Your task to perform on an android device: snooze an email in the gmail app Image 0: 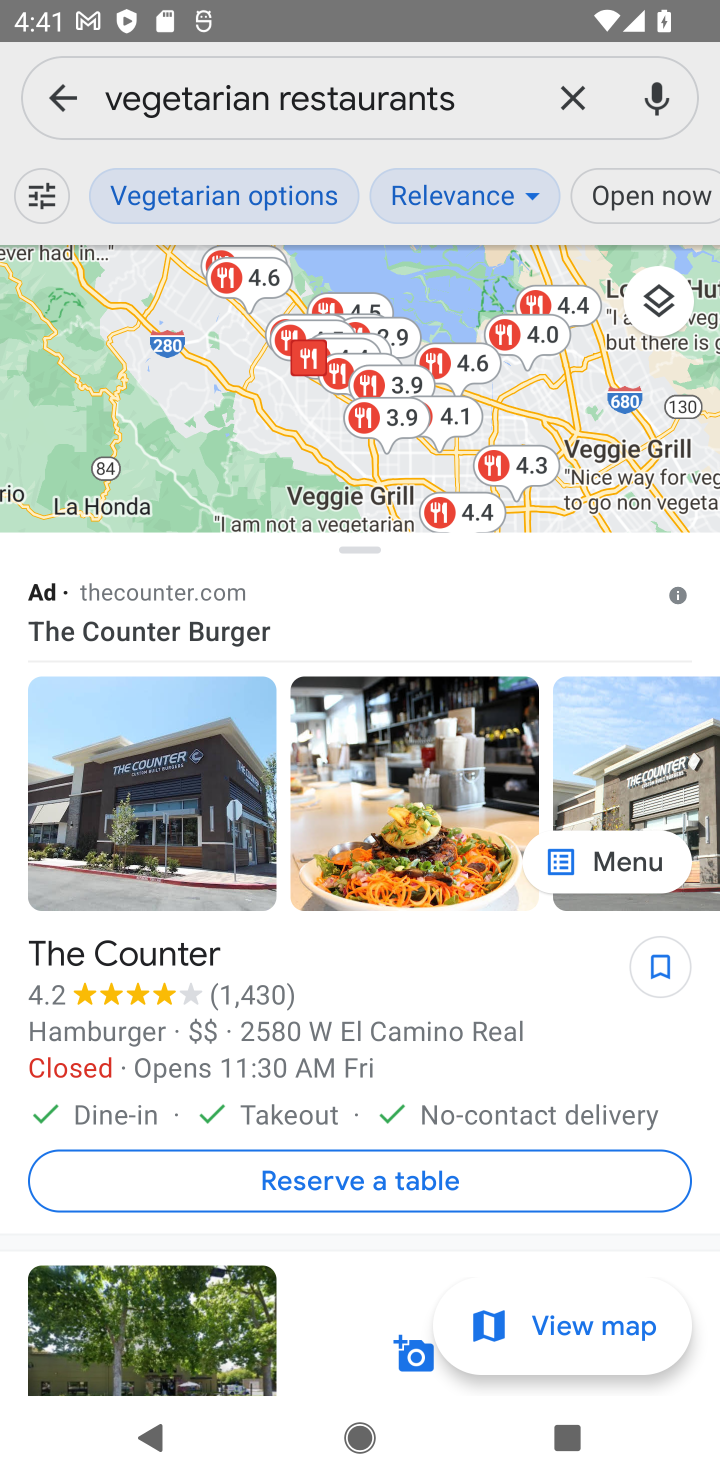
Step 0: press home button
Your task to perform on an android device: snooze an email in the gmail app Image 1: 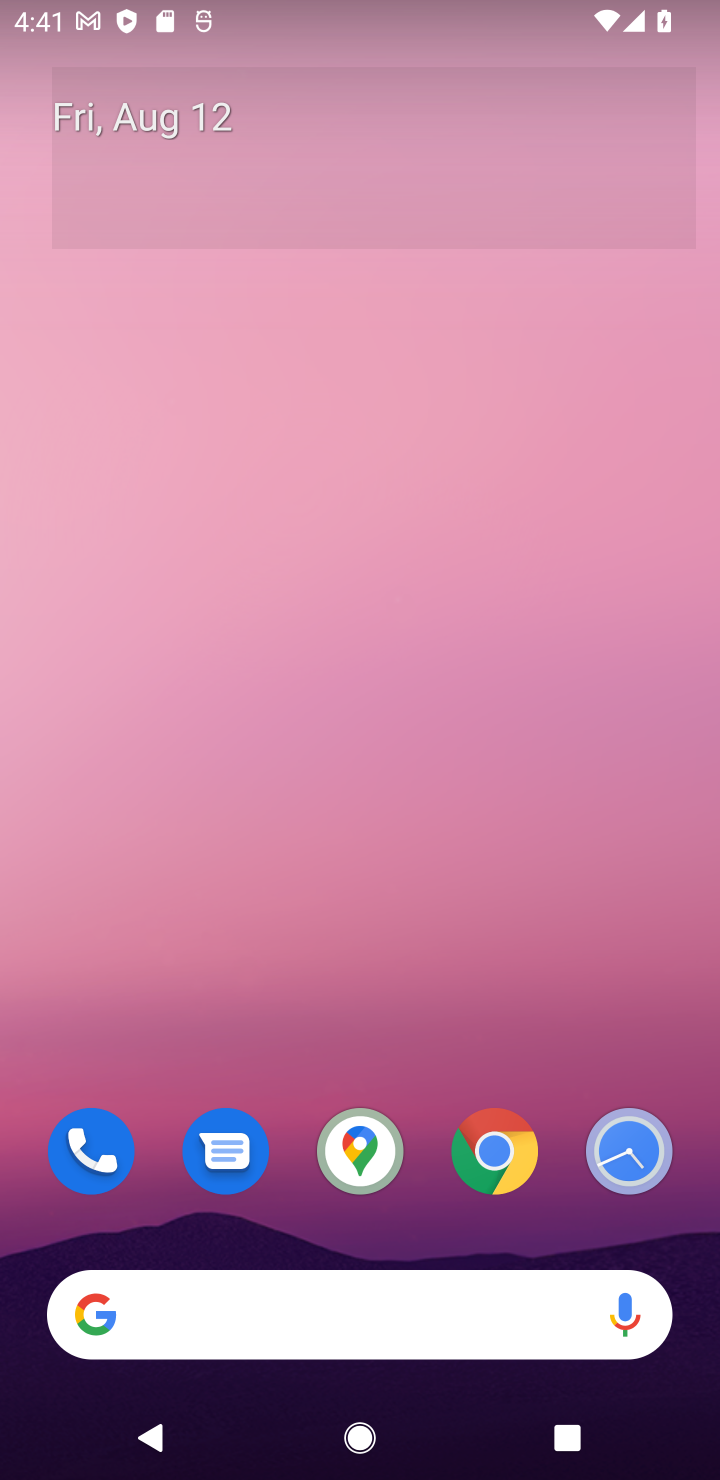
Step 1: drag from (560, 1021) to (569, 106)
Your task to perform on an android device: snooze an email in the gmail app Image 2: 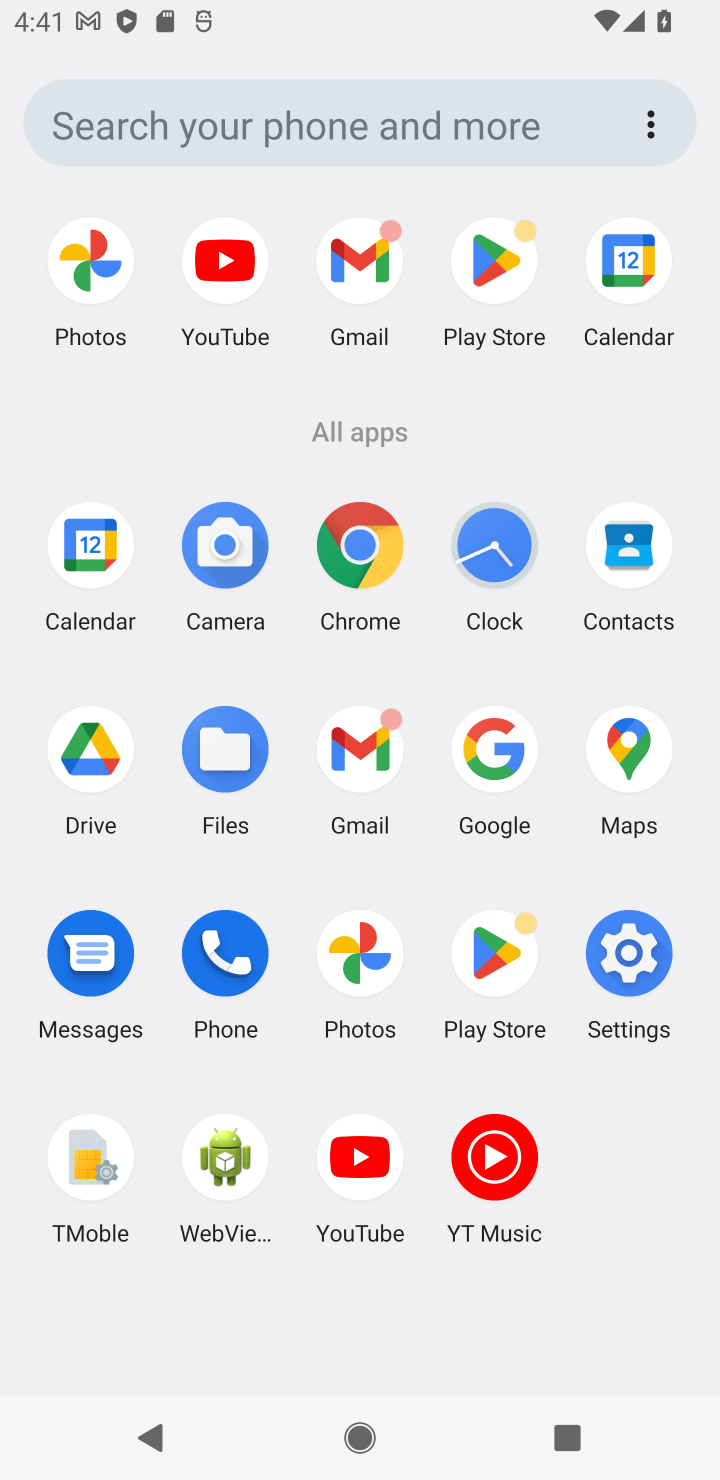
Step 2: click (380, 248)
Your task to perform on an android device: snooze an email in the gmail app Image 3: 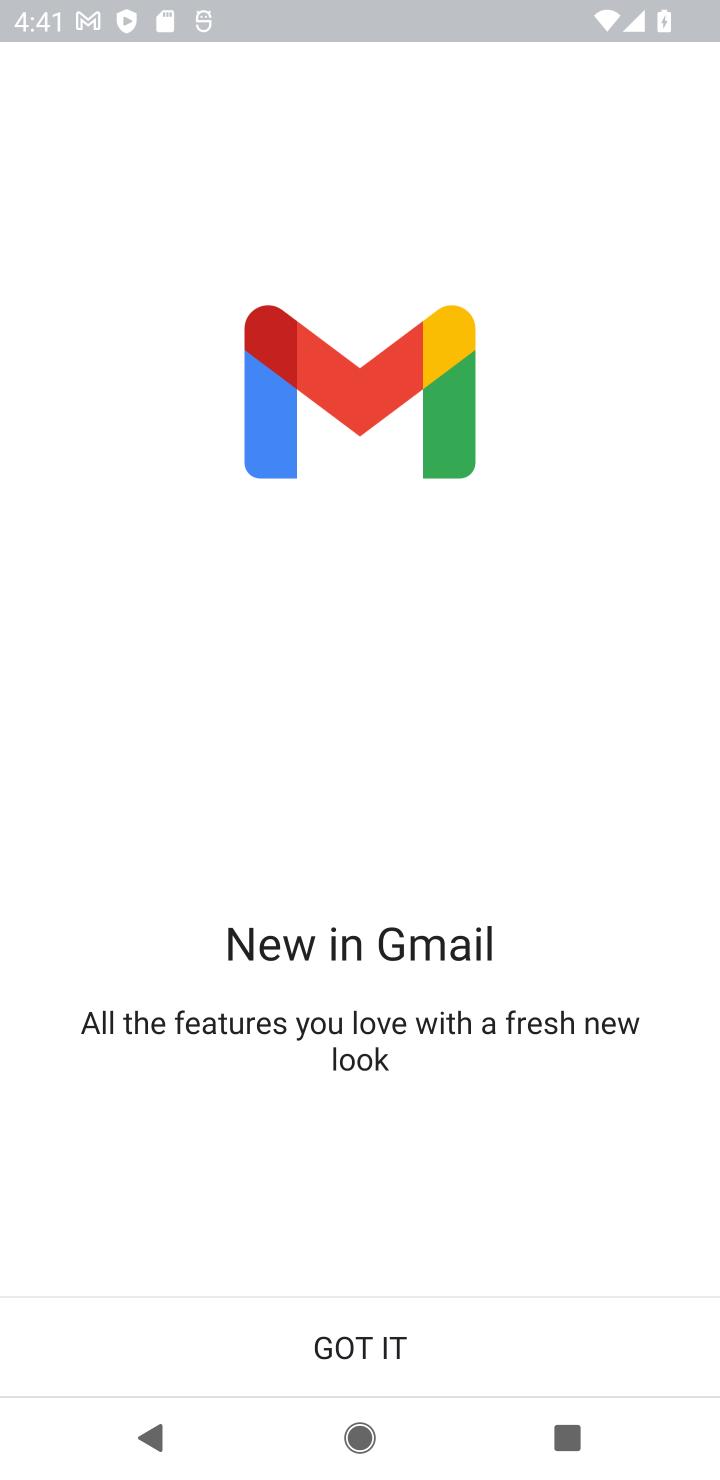
Step 3: click (399, 1316)
Your task to perform on an android device: snooze an email in the gmail app Image 4: 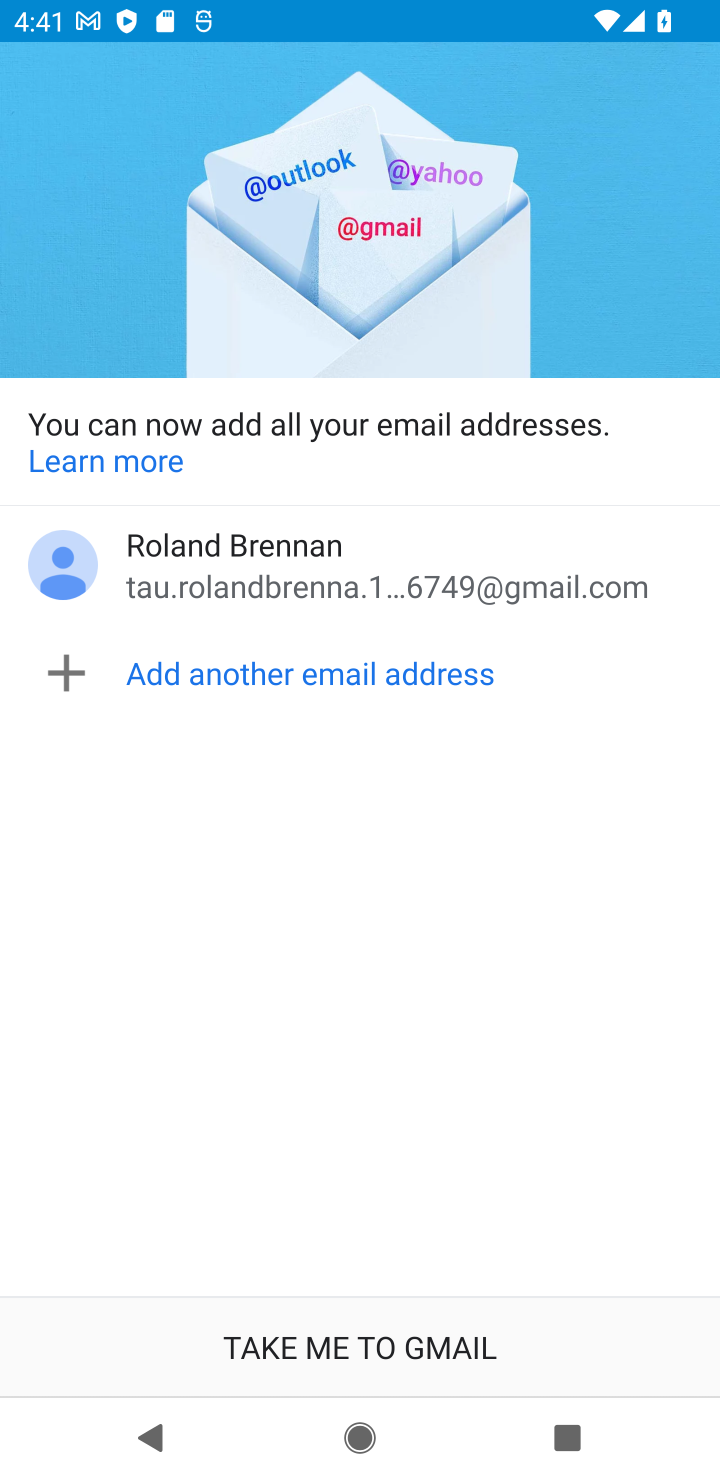
Step 4: click (322, 1307)
Your task to perform on an android device: snooze an email in the gmail app Image 5: 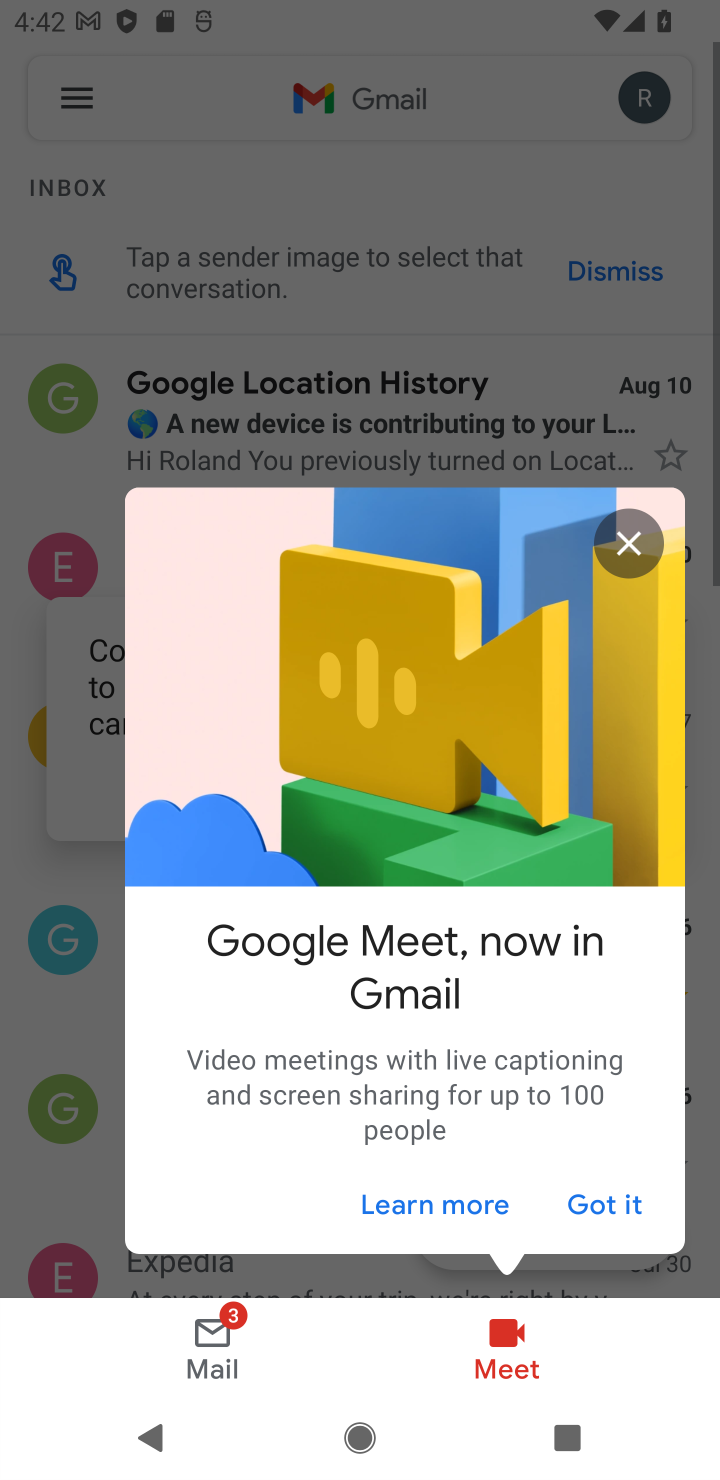
Step 5: click (624, 777)
Your task to perform on an android device: snooze an email in the gmail app Image 6: 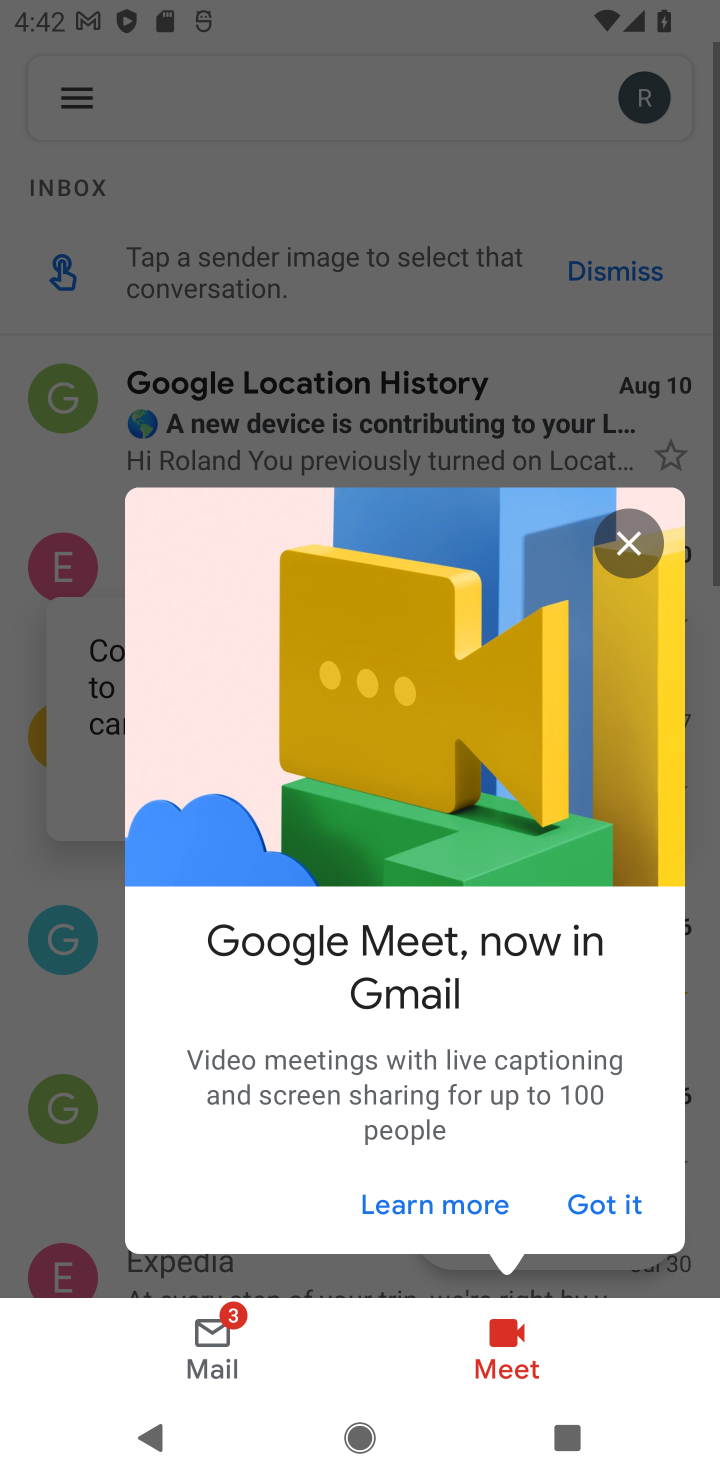
Step 6: click (623, 1201)
Your task to perform on an android device: snooze an email in the gmail app Image 7: 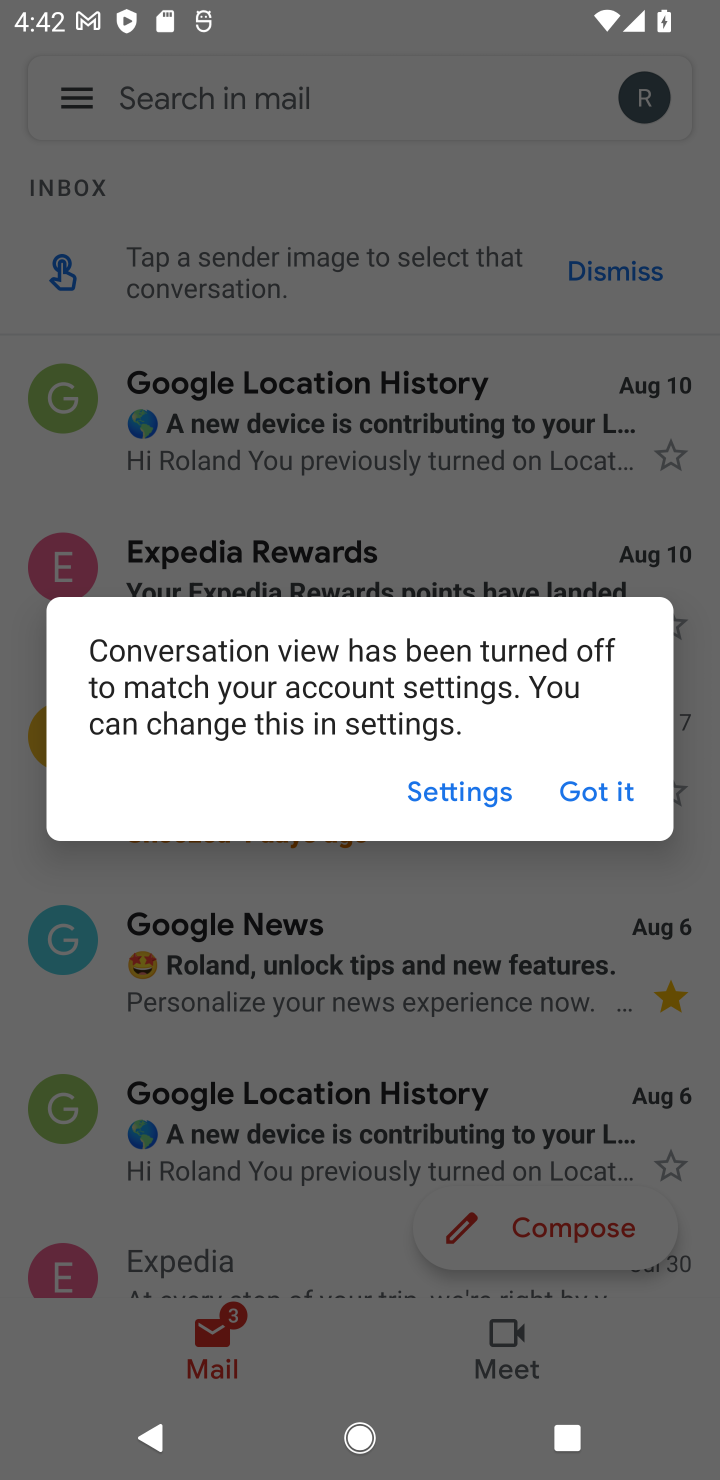
Step 7: click (594, 805)
Your task to perform on an android device: snooze an email in the gmail app Image 8: 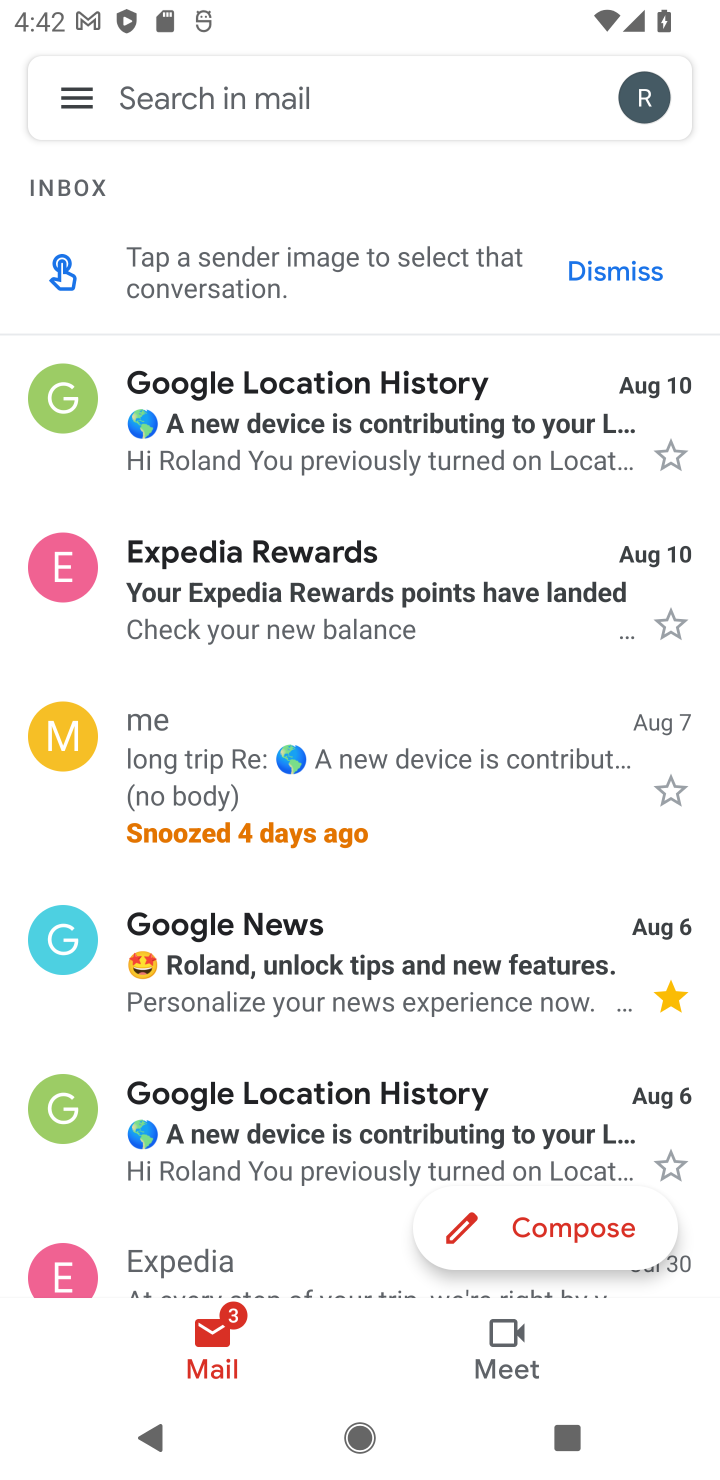
Step 8: click (90, 89)
Your task to perform on an android device: snooze an email in the gmail app Image 9: 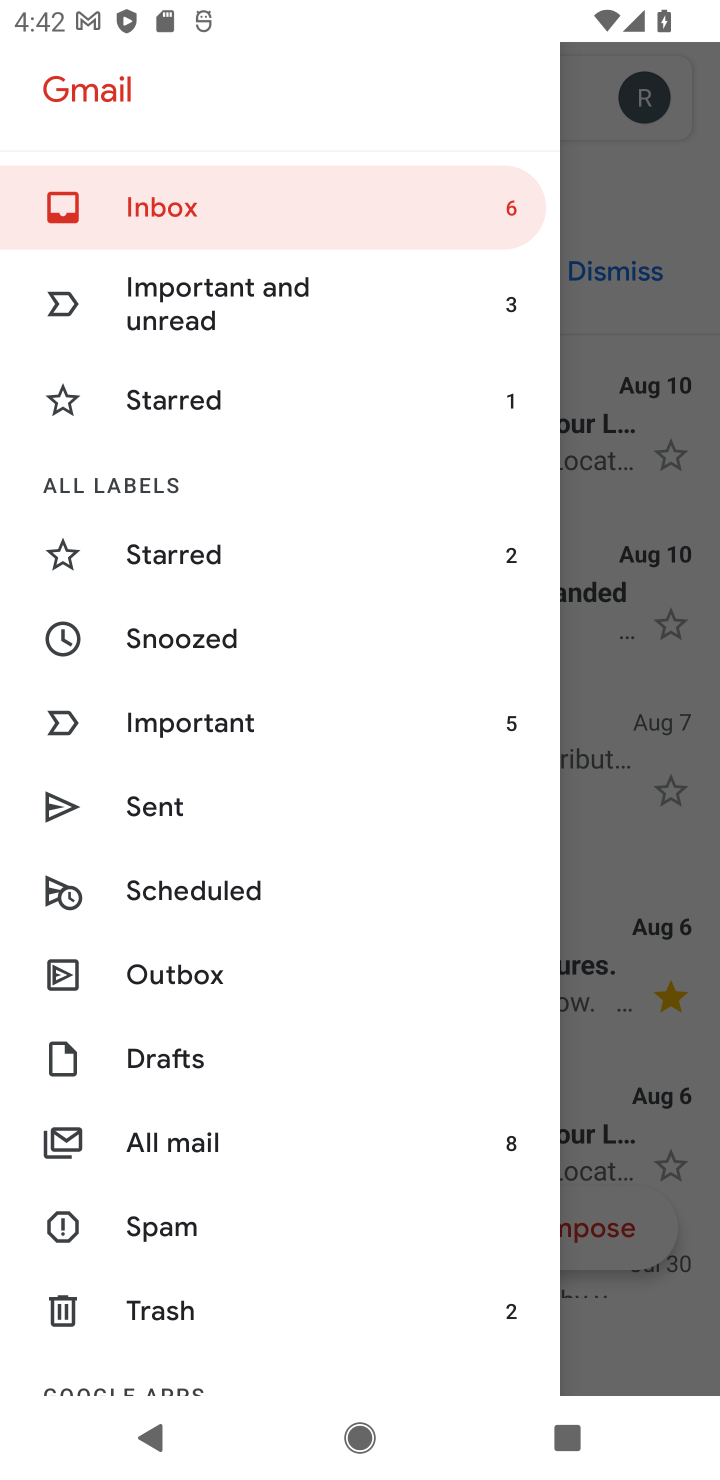
Step 9: click (179, 651)
Your task to perform on an android device: snooze an email in the gmail app Image 10: 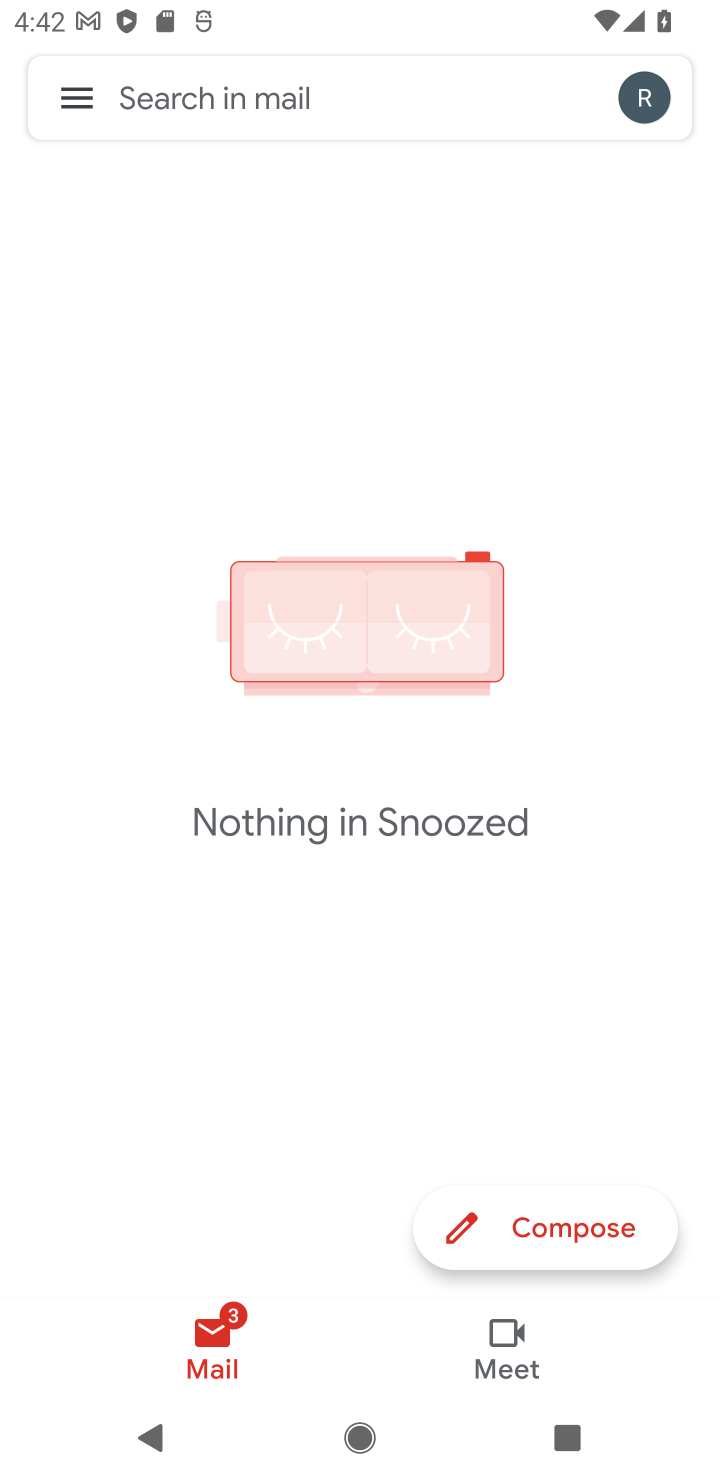
Step 10: click (67, 81)
Your task to perform on an android device: snooze an email in the gmail app Image 11: 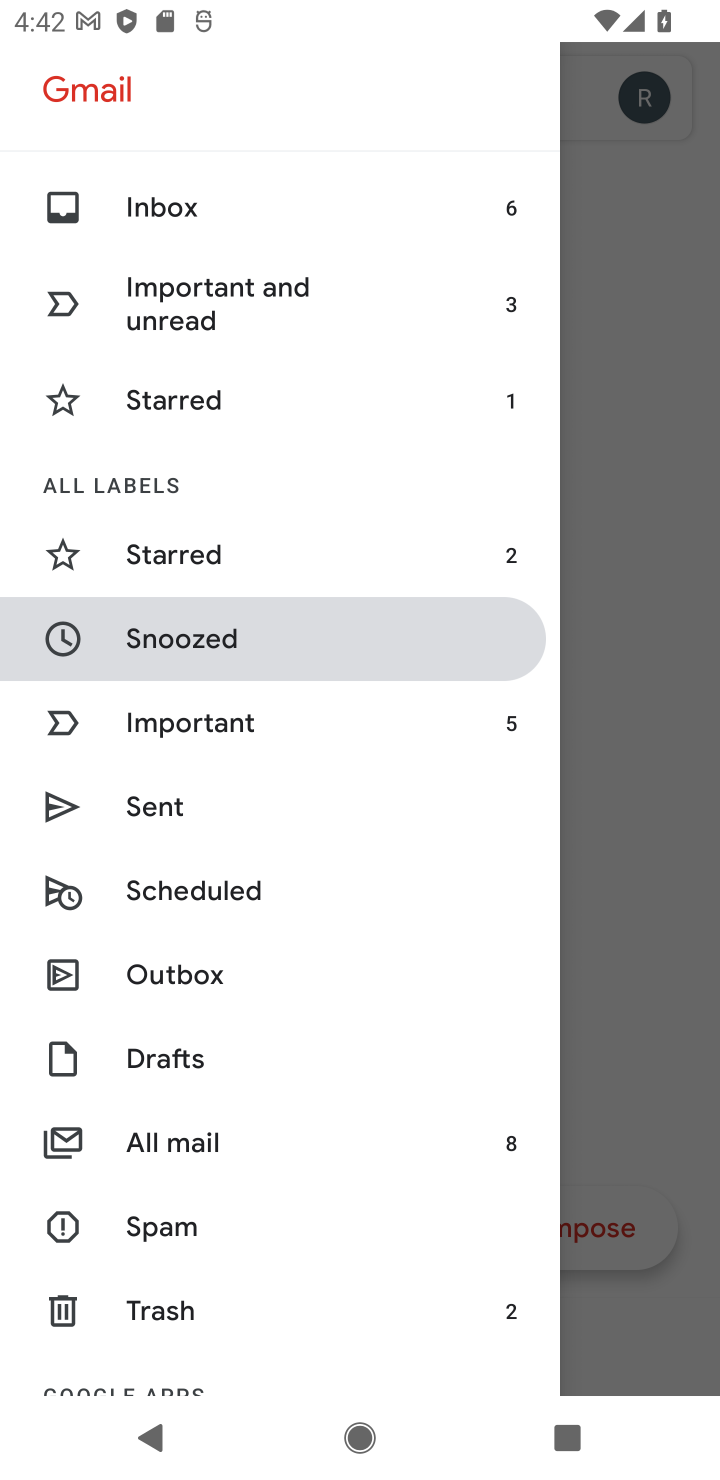
Step 11: click (204, 1150)
Your task to perform on an android device: snooze an email in the gmail app Image 12: 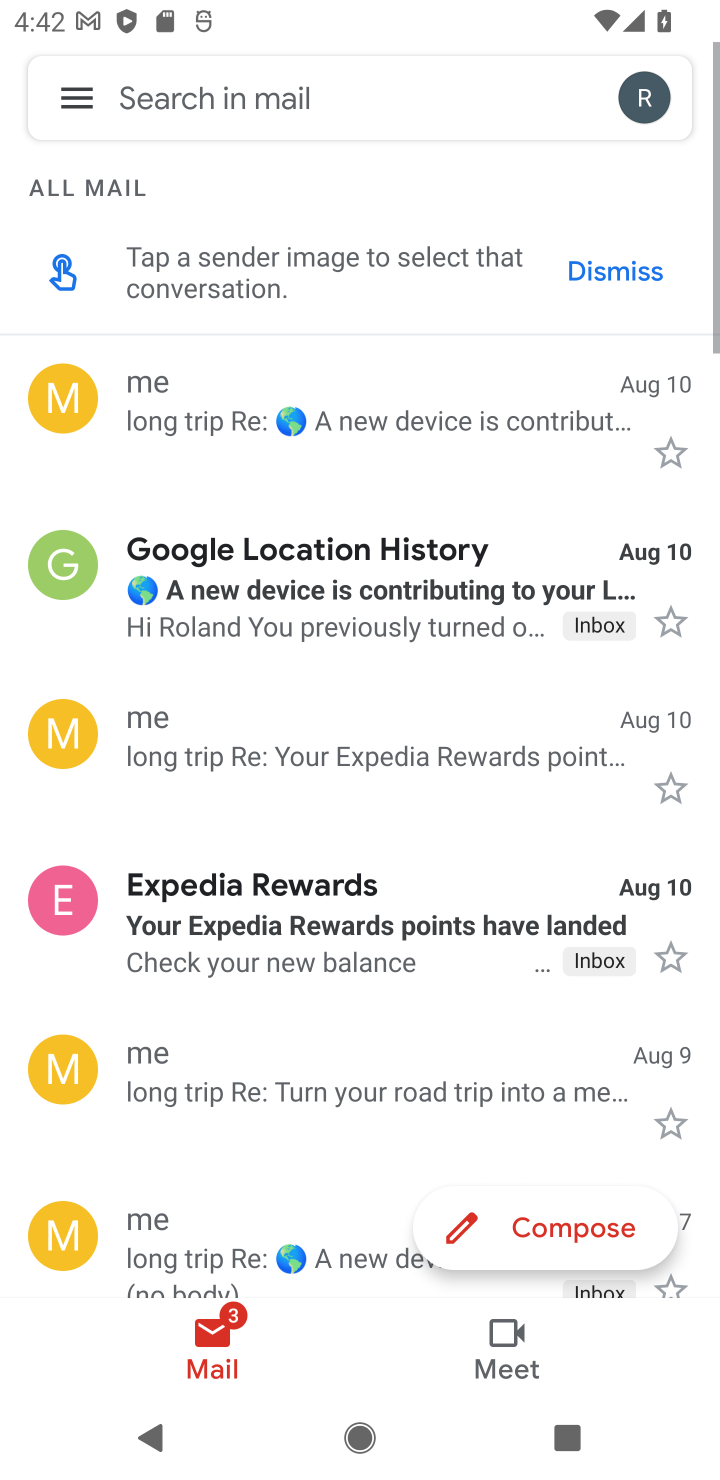
Step 12: click (317, 407)
Your task to perform on an android device: snooze an email in the gmail app Image 13: 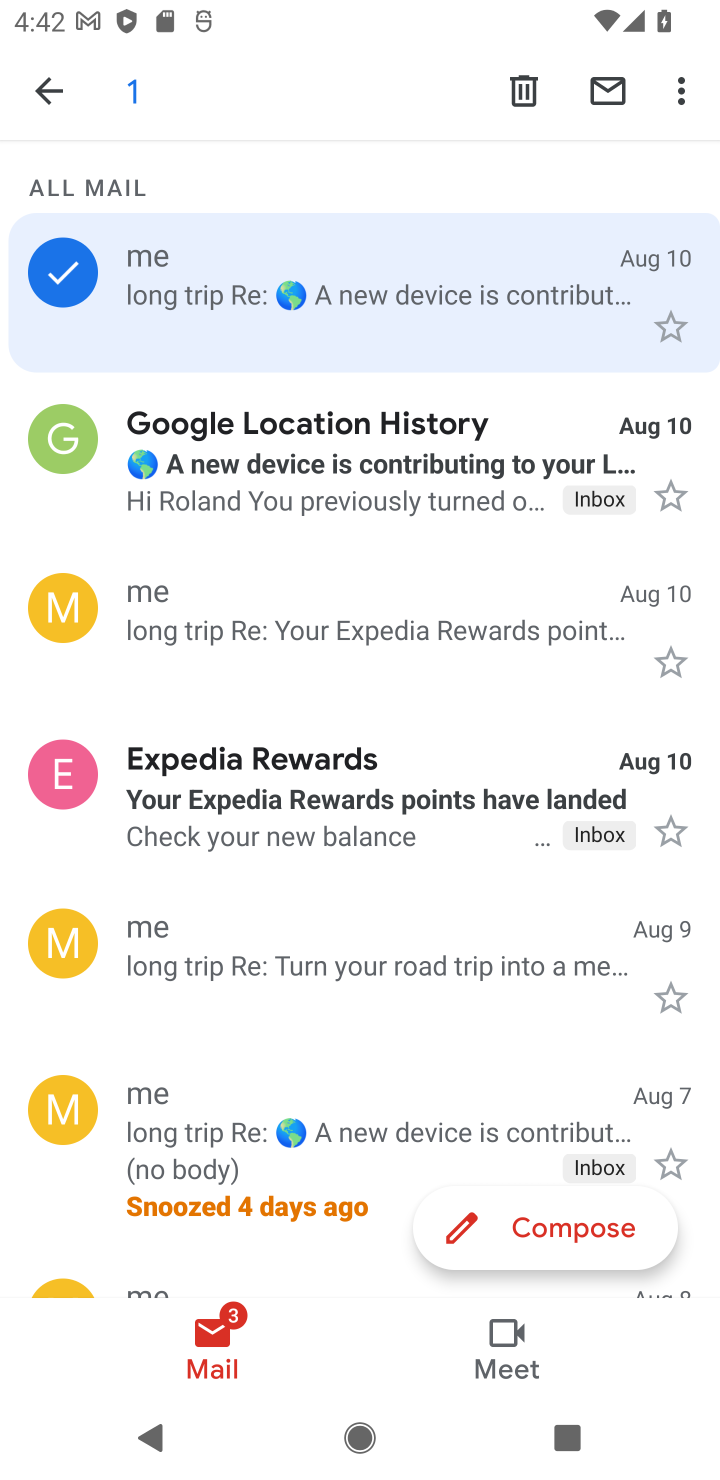
Step 13: click (679, 92)
Your task to perform on an android device: snooze an email in the gmail app Image 14: 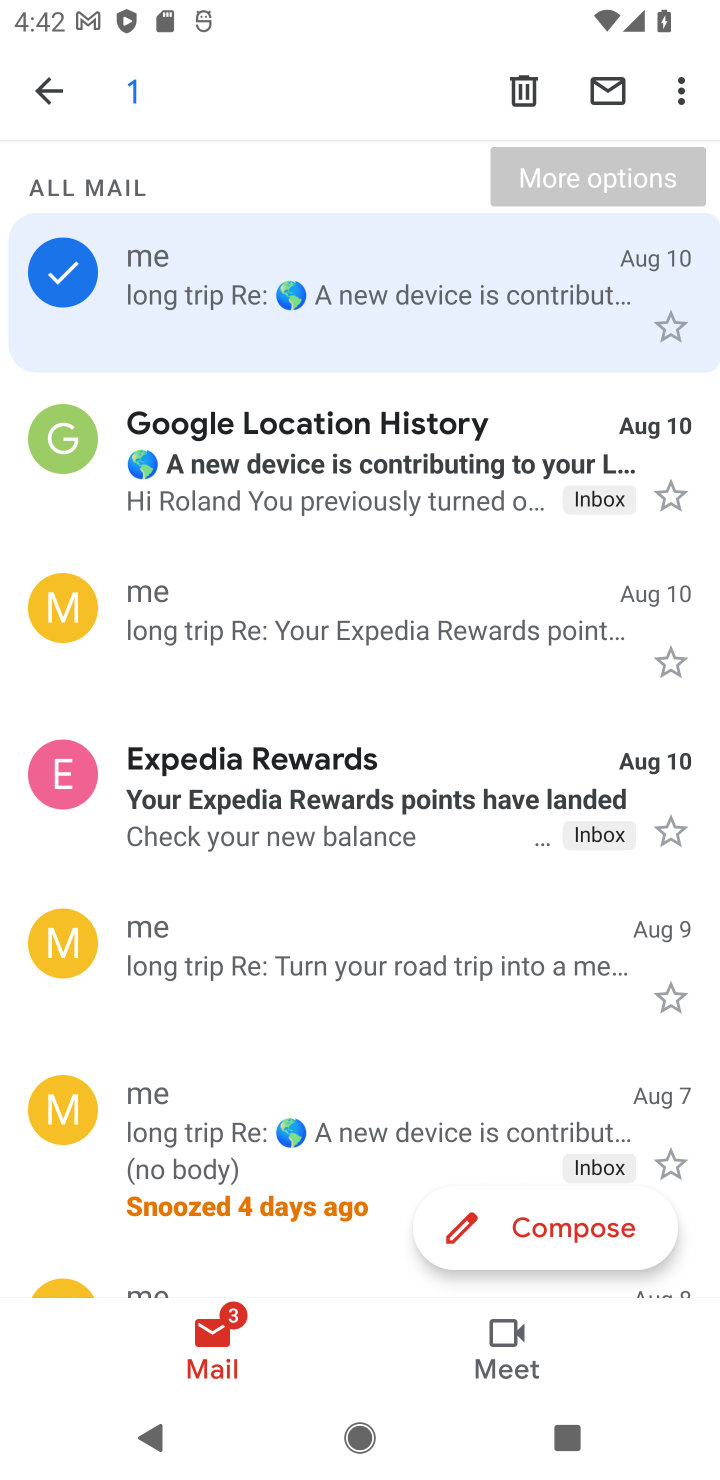
Step 14: click (675, 92)
Your task to perform on an android device: snooze an email in the gmail app Image 15: 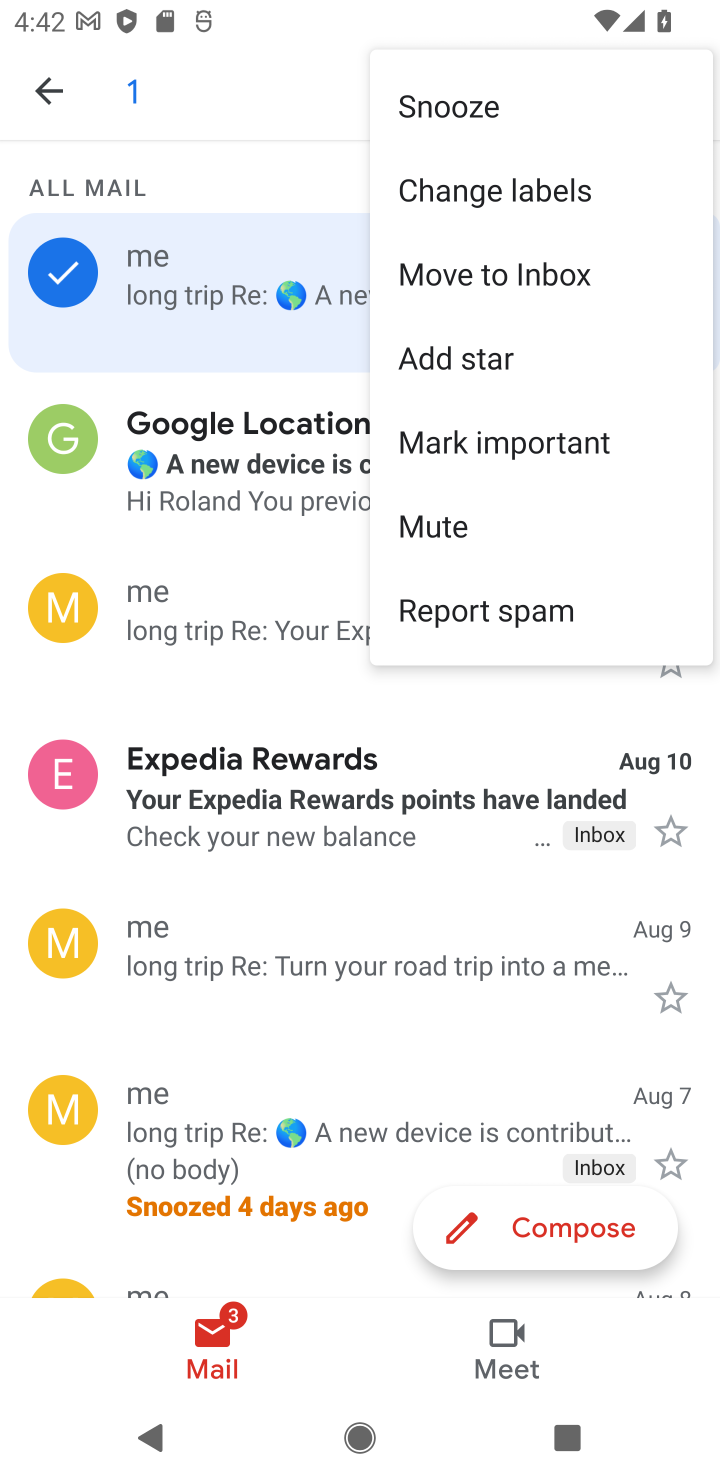
Step 15: click (514, 96)
Your task to perform on an android device: snooze an email in the gmail app Image 16: 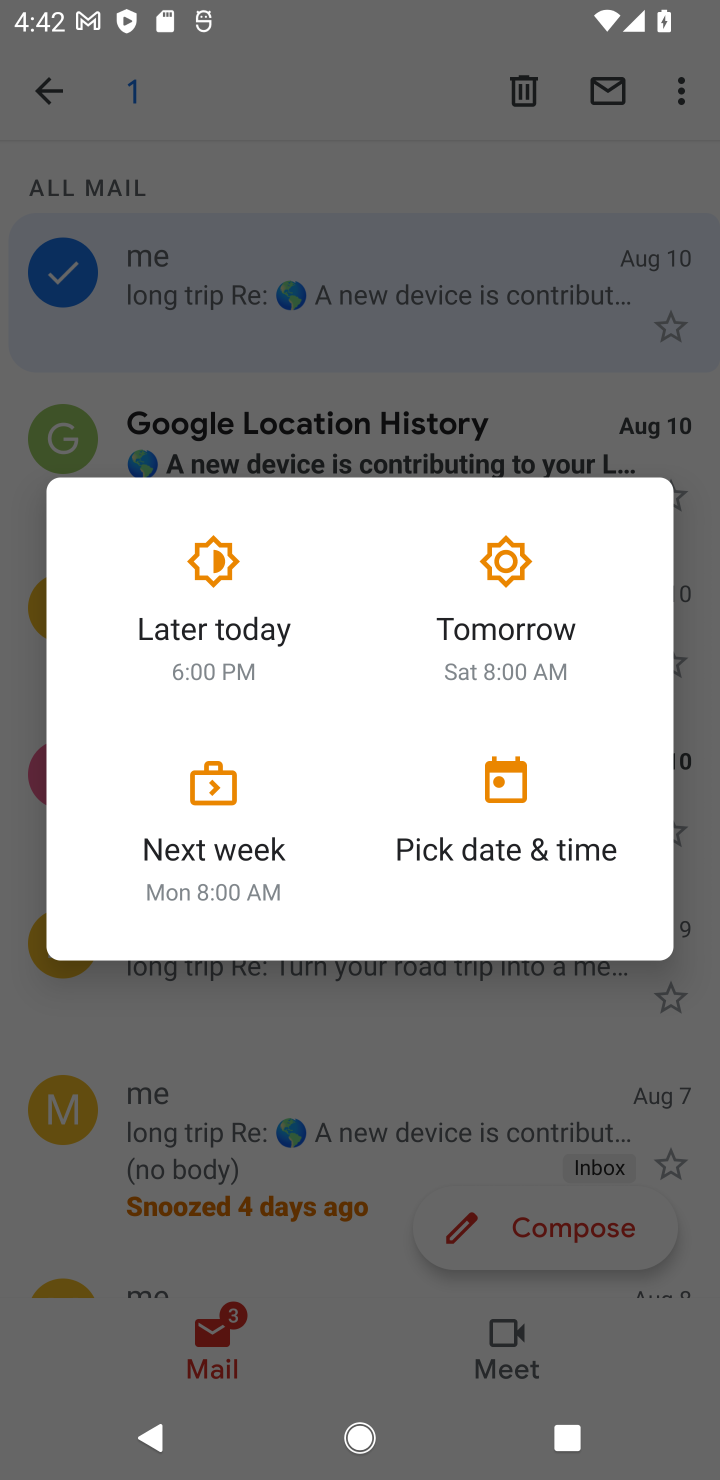
Step 16: click (200, 587)
Your task to perform on an android device: snooze an email in the gmail app Image 17: 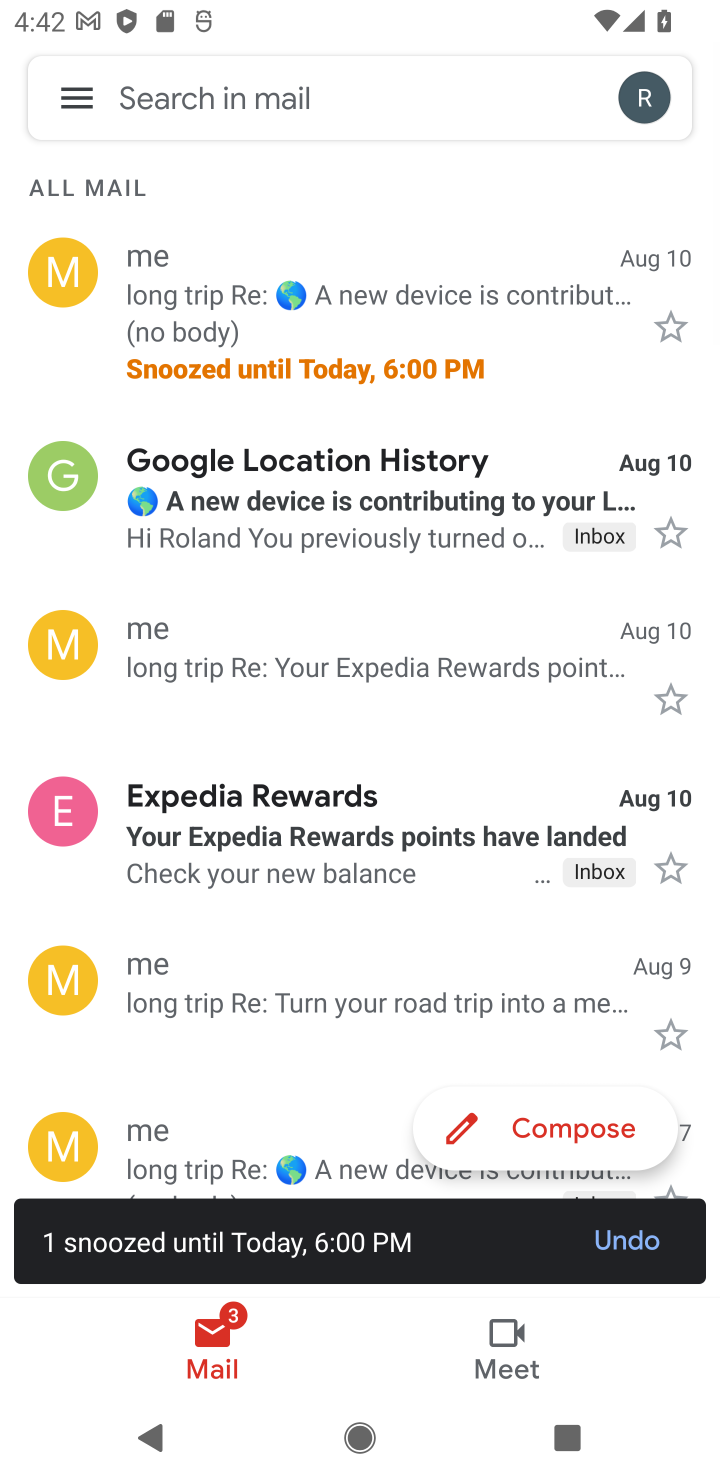
Step 17: task complete